Your task to perform on an android device: Open Chrome and go to settings Image 0: 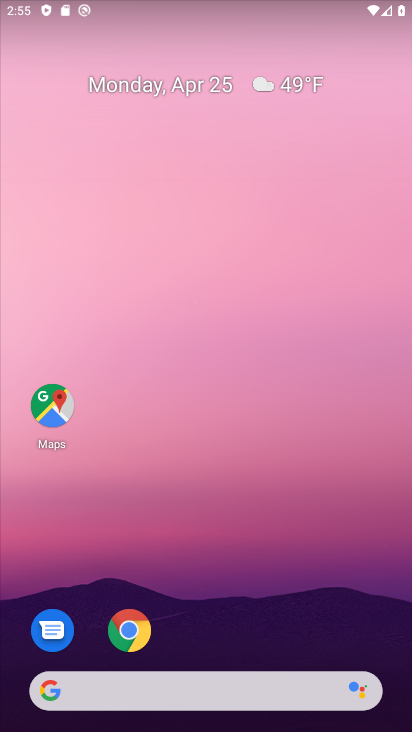
Step 0: click (127, 618)
Your task to perform on an android device: Open Chrome and go to settings Image 1: 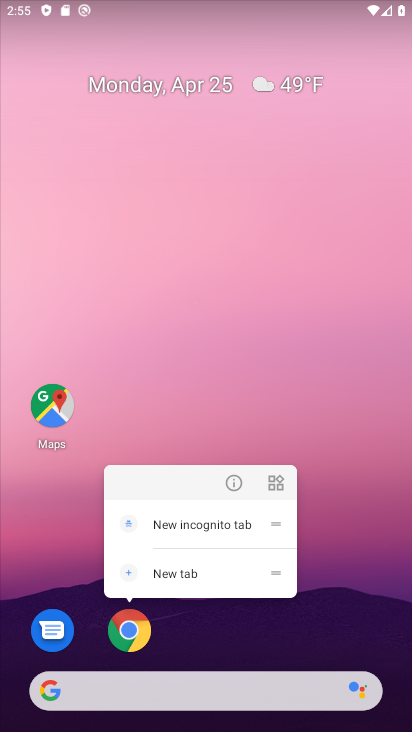
Step 1: click (127, 618)
Your task to perform on an android device: Open Chrome and go to settings Image 2: 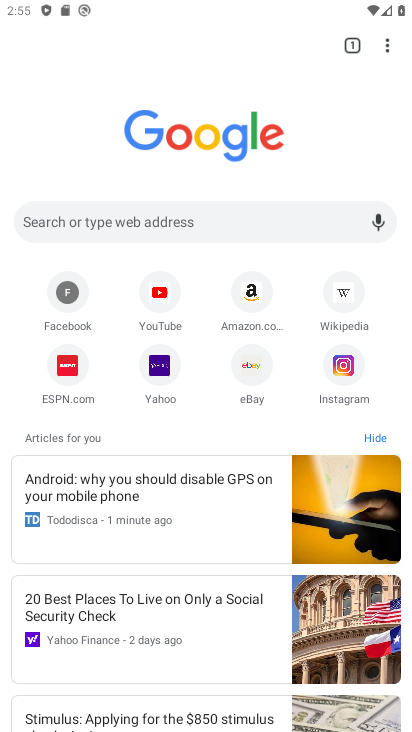
Step 2: click (386, 45)
Your task to perform on an android device: Open Chrome and go to settings Image 3: 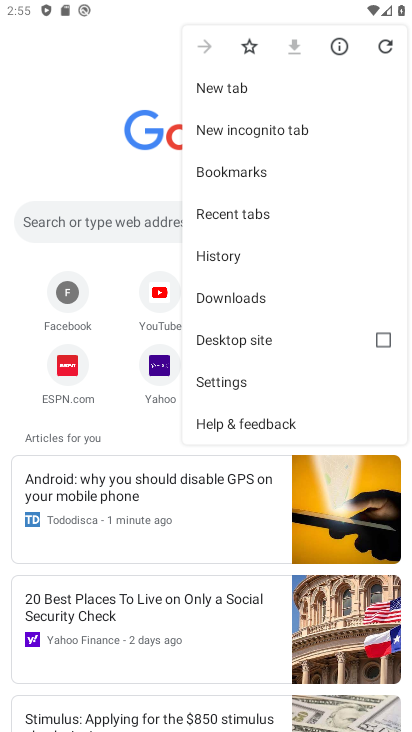
Step 3: click (274, 376)
Your task to perform on an android device: Open Chrome and go to settings Image 4: 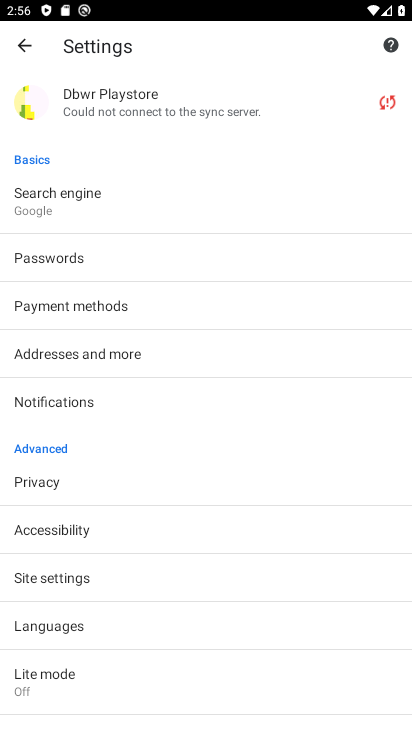
Step 4: task complete